Your task to perform on an android device: Search for "logitech g pro" on target.com, select the first entry, add it to the cart, then select checkout. Image 0: 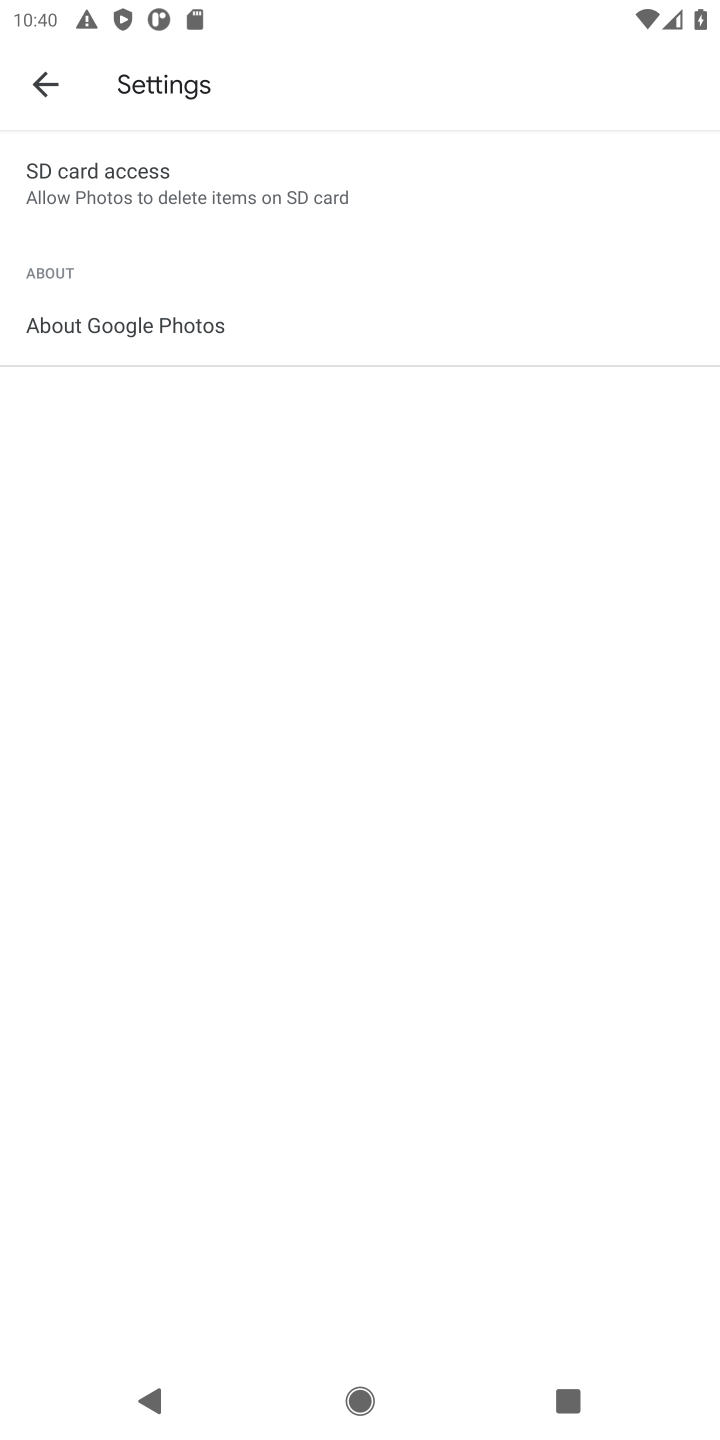
Step 0: press home button
Your task to perform on an android device: Search for "logitech g pro" on target.com, select the first entry, add it to the cart, then select checkout. Image 1: 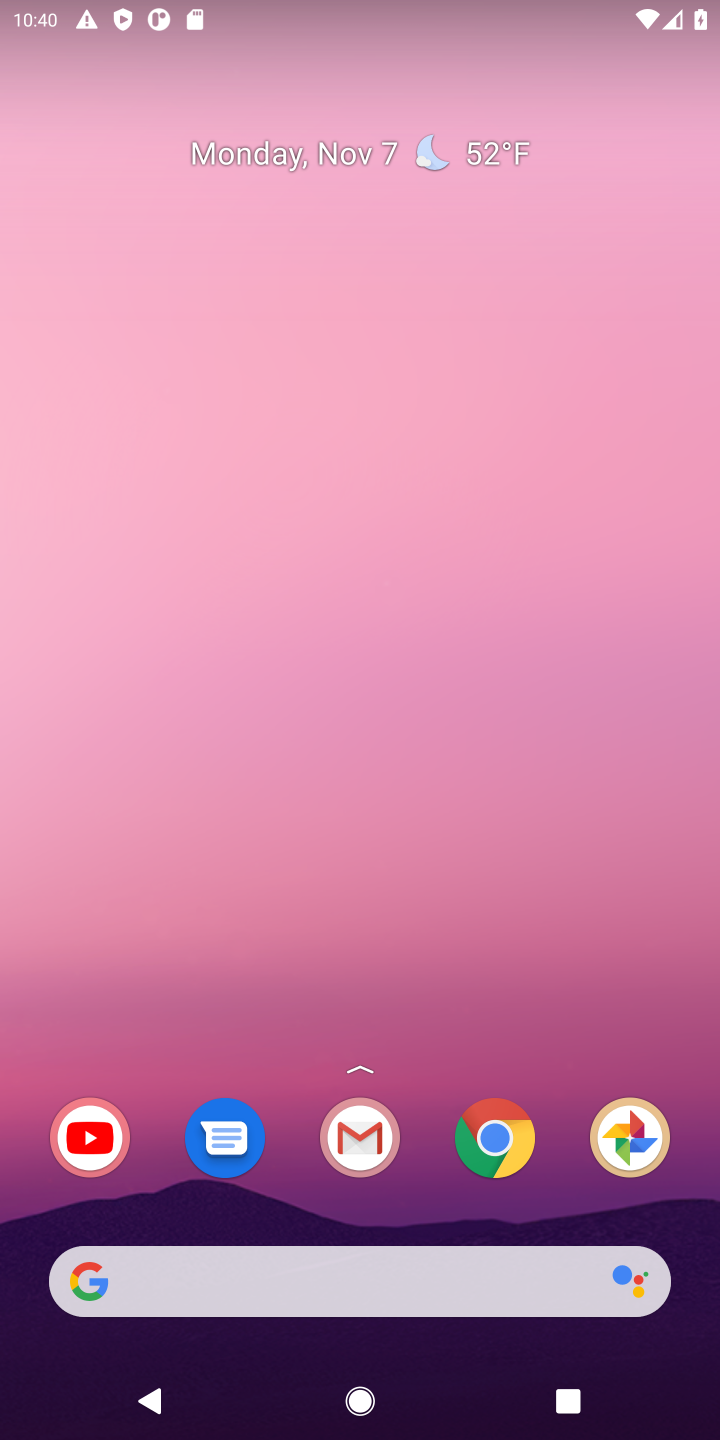
Step 1: click (502, 1147)
Your task to perform on an android device: Search for "logitech g pro" on target.com, select the first entry, add it to the cart, then select checkout. Image 2: 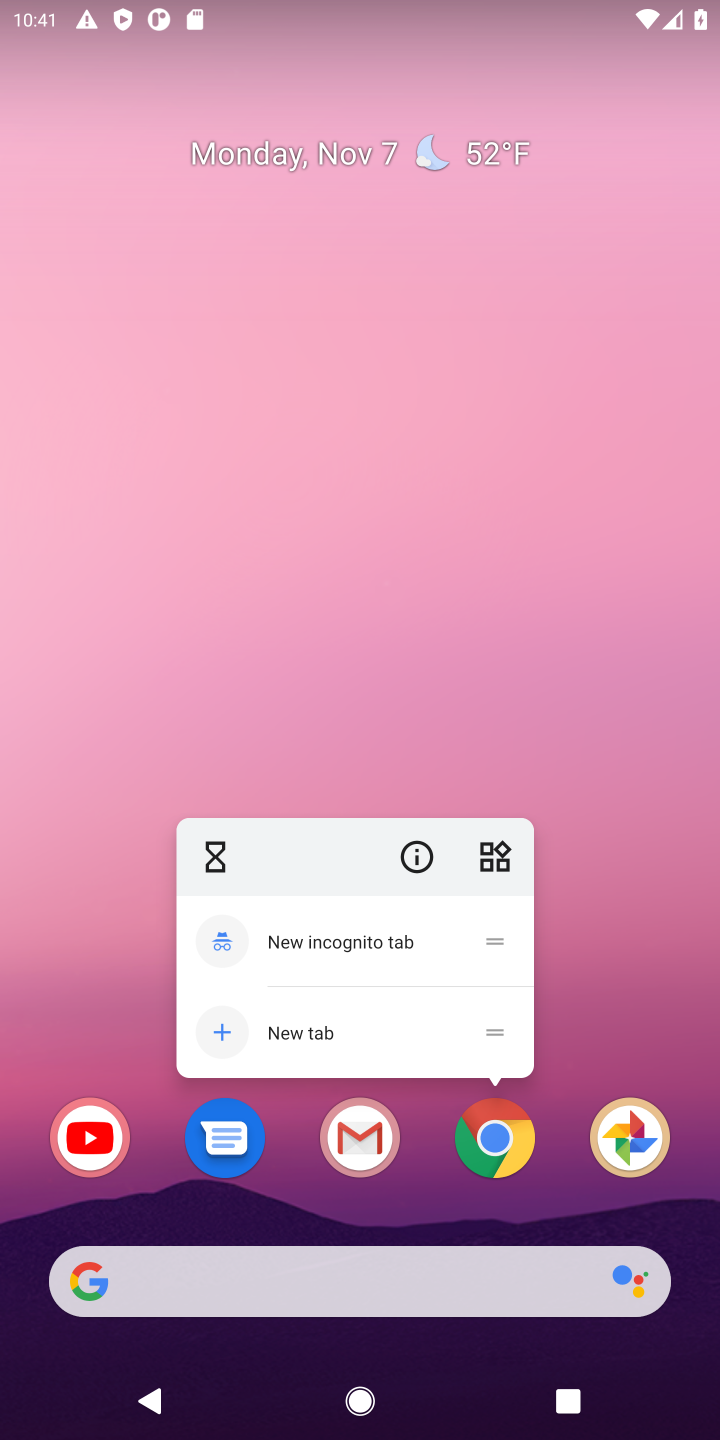
Step 2: click (502, 1147)
Your task to perform on an android device: Search for "logitech g pro" on target.com, select the first entry, add it to the cart, then select checkout. Image 3: 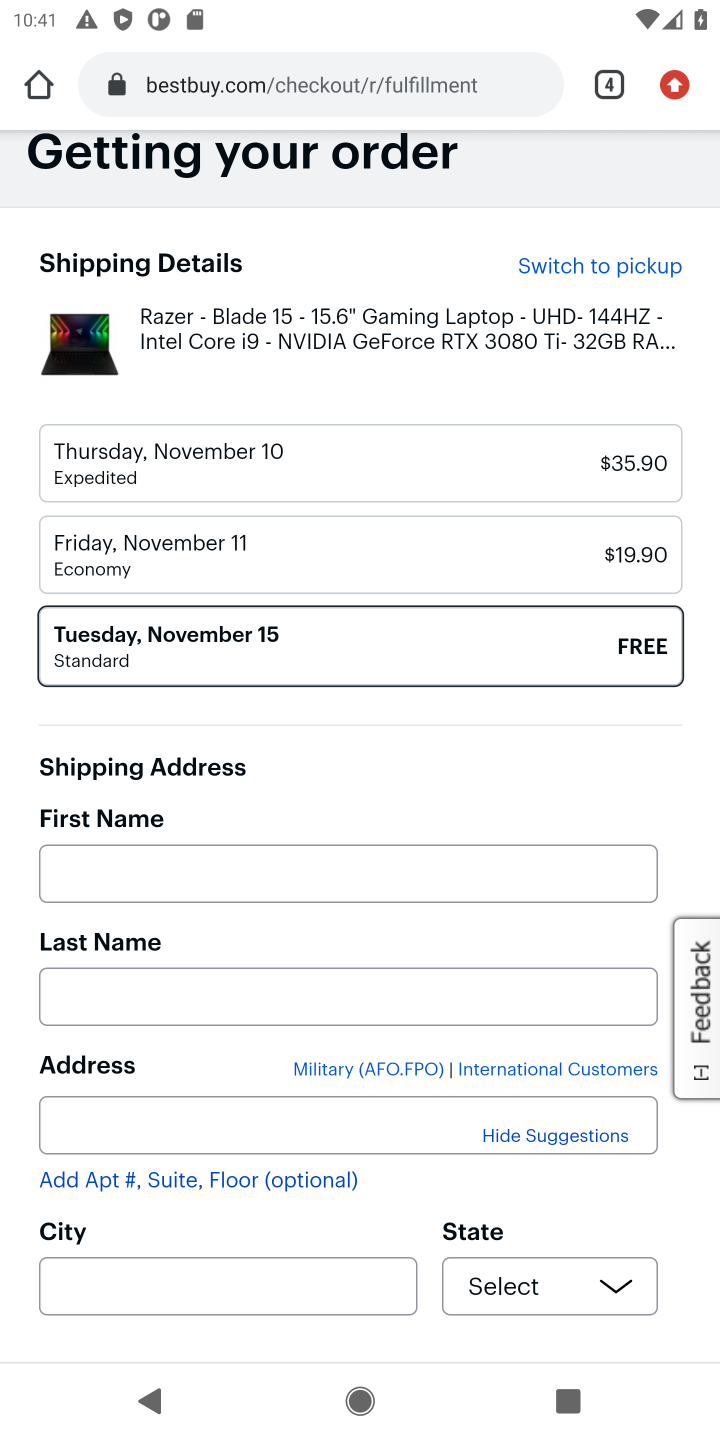
Step 3: click (215, 98)
Your task to perform on an android device: Search for "logitech g pro" on target.com, select the first entry, add it to the cart, then select checkout. Image 4: 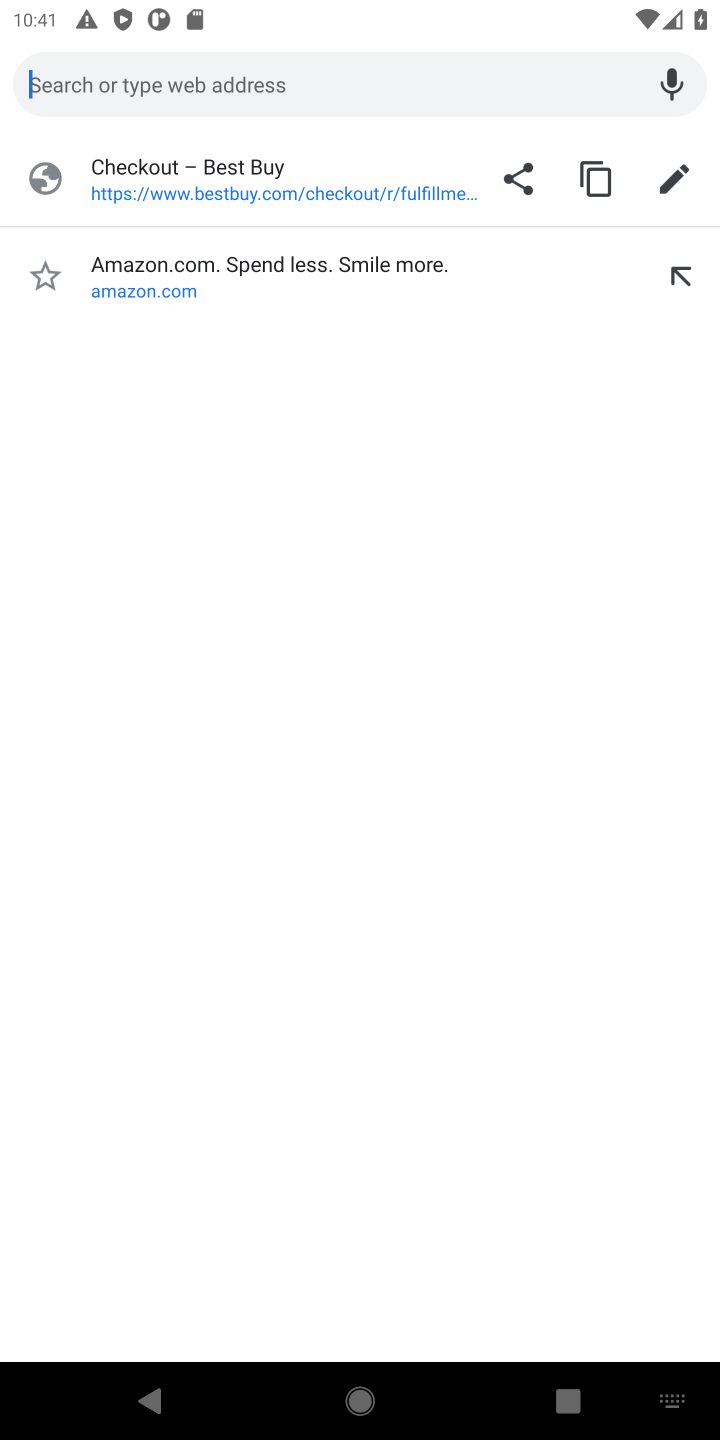
Step 4: type "target "
Your task to perform on an android device: Search for "logitech g pro" on target.com, select the first entry, add it to the cart, then select checkout. Image 5: 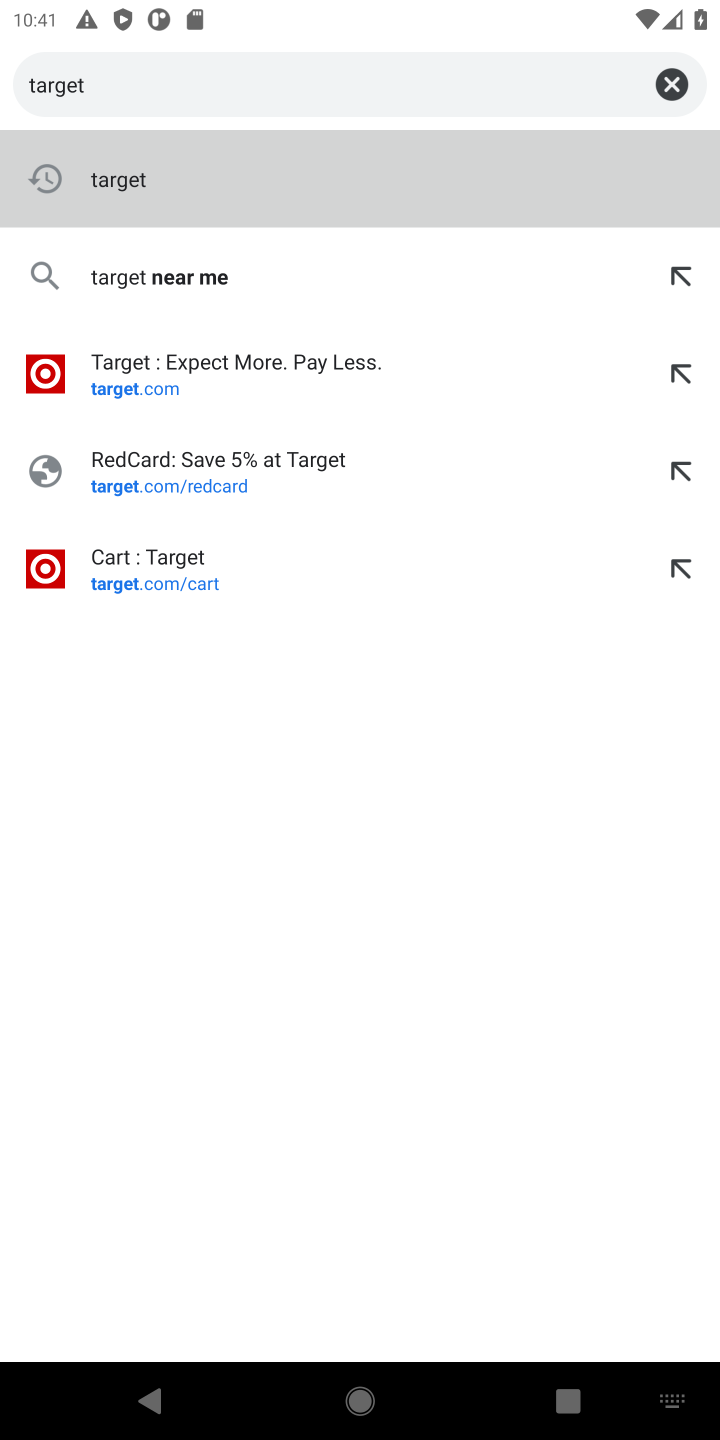
Step 5: click (124, 553)
Your task to perform on an android device: Search for "logitech g pro" on target.com, select the first entry, add it to the cart, then select checkout. Image 6: 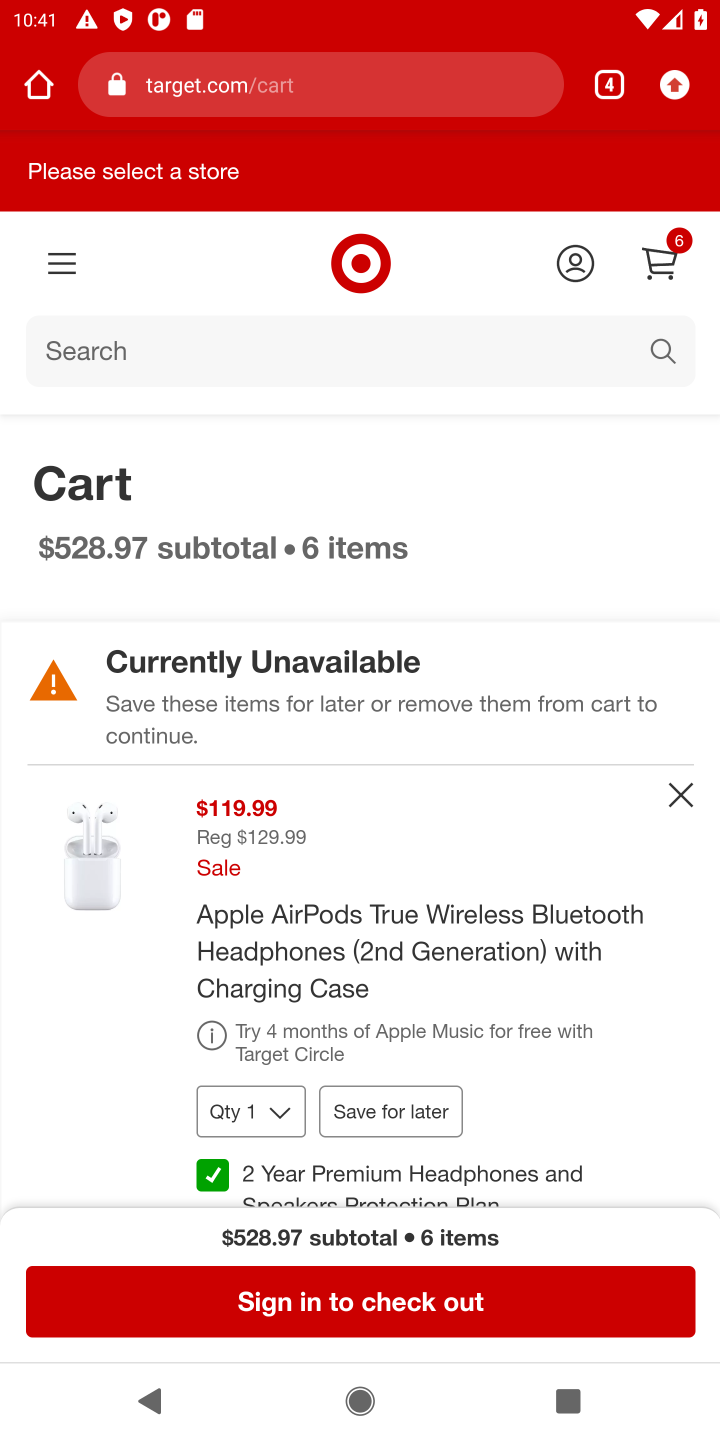
Step 6: click (664, 330)
Your task to perform on an android device: Search for "logitech g pro" on target.com, select the first entry, add it to the cart, then select checkout. Image 7: 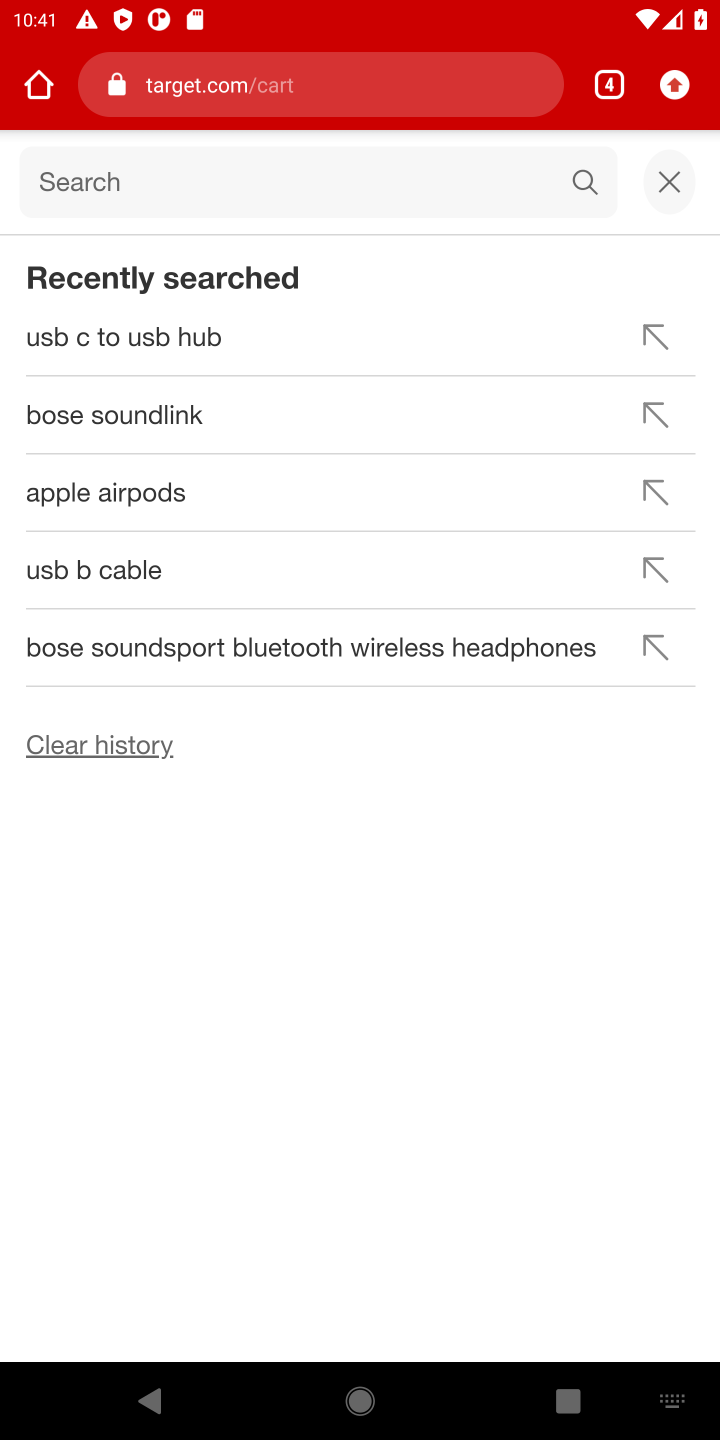
Step 7: type "logitech g pro"
Your task to perform on an android device: Search for "logitech g pro" on target.com, select the first entry, add it to the cart, then select checkout. Image 8: 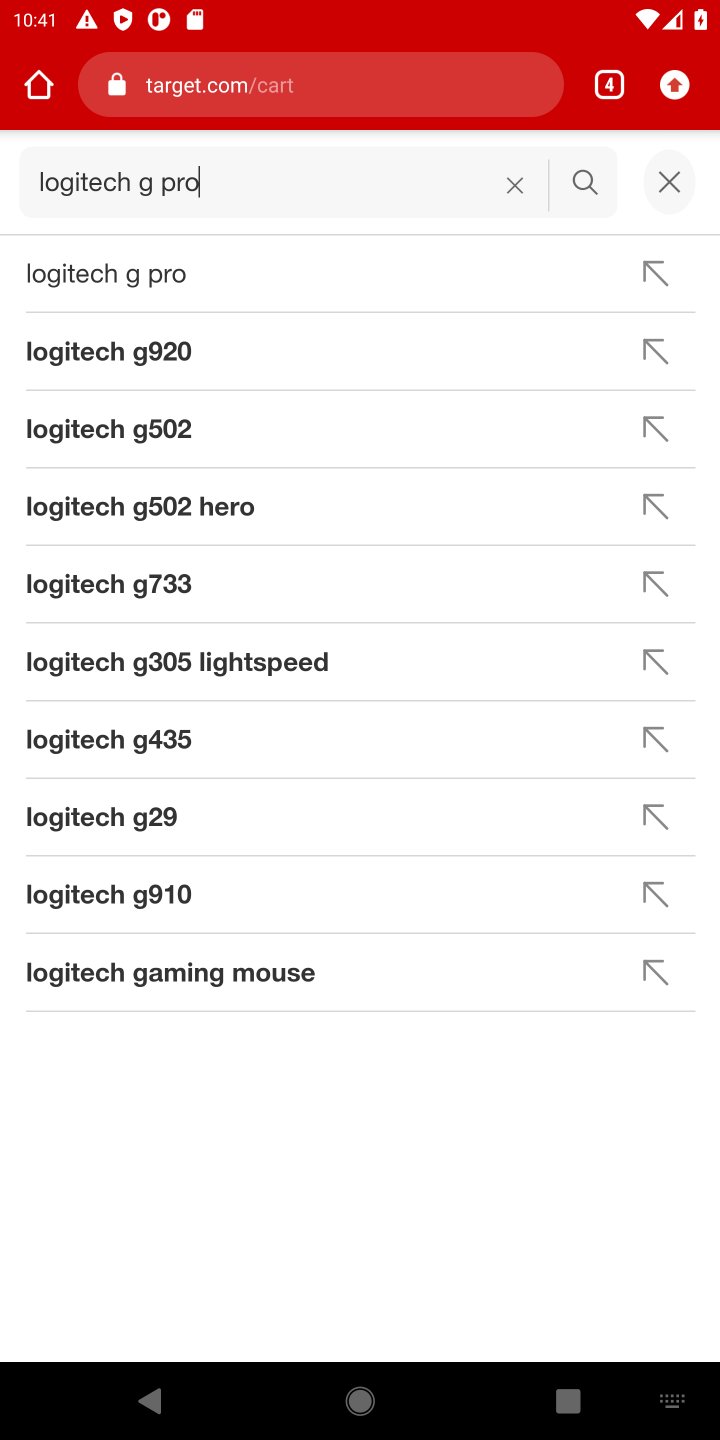
Step 8: click (106, 267)
Your task to perform on an android device: Search for "logitech g pro" on target.com, select the first entry, add it to the cart, then select checkout. Image 9: 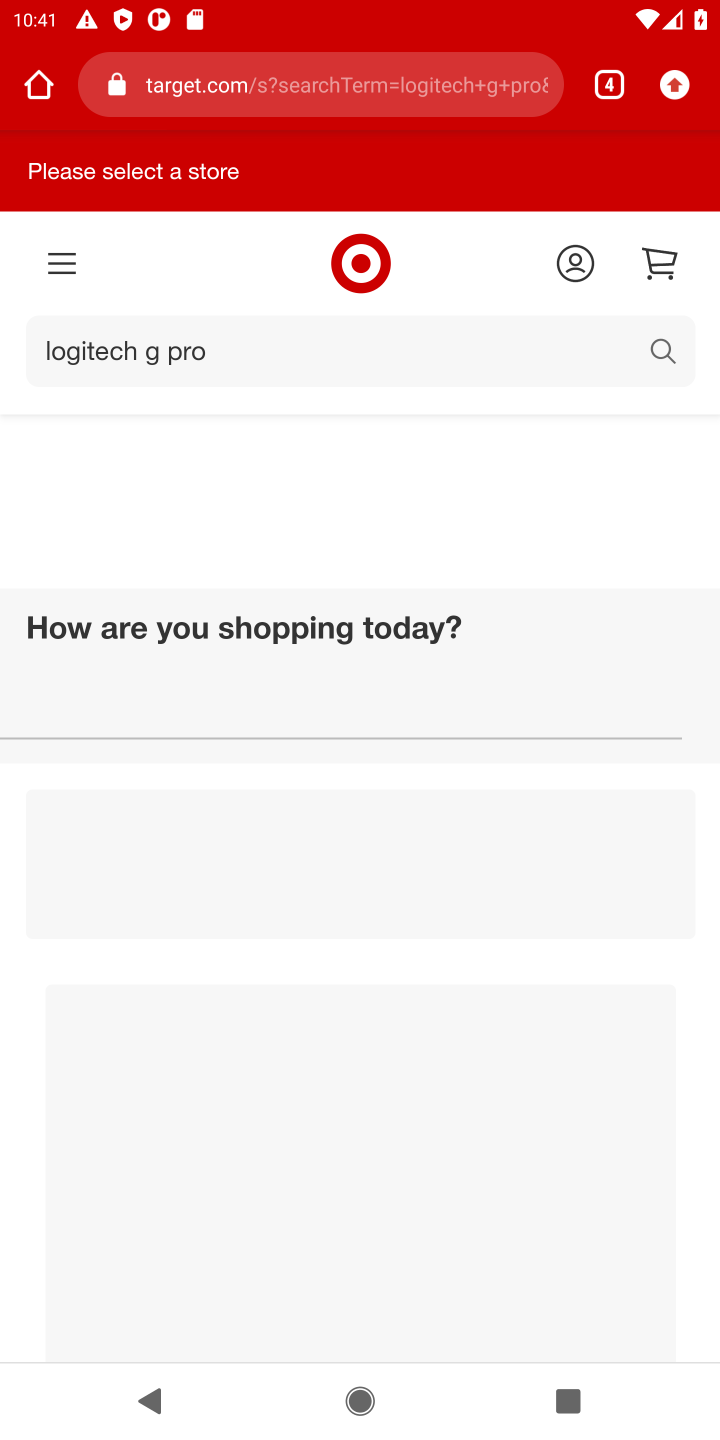
Step 9: drag from (321, 1116) to (250, 372)
Your task to perform on an android device: Search for "logitech g pro" on target.com, select the first entry, add it to the cart, then select checkout. Image 10: 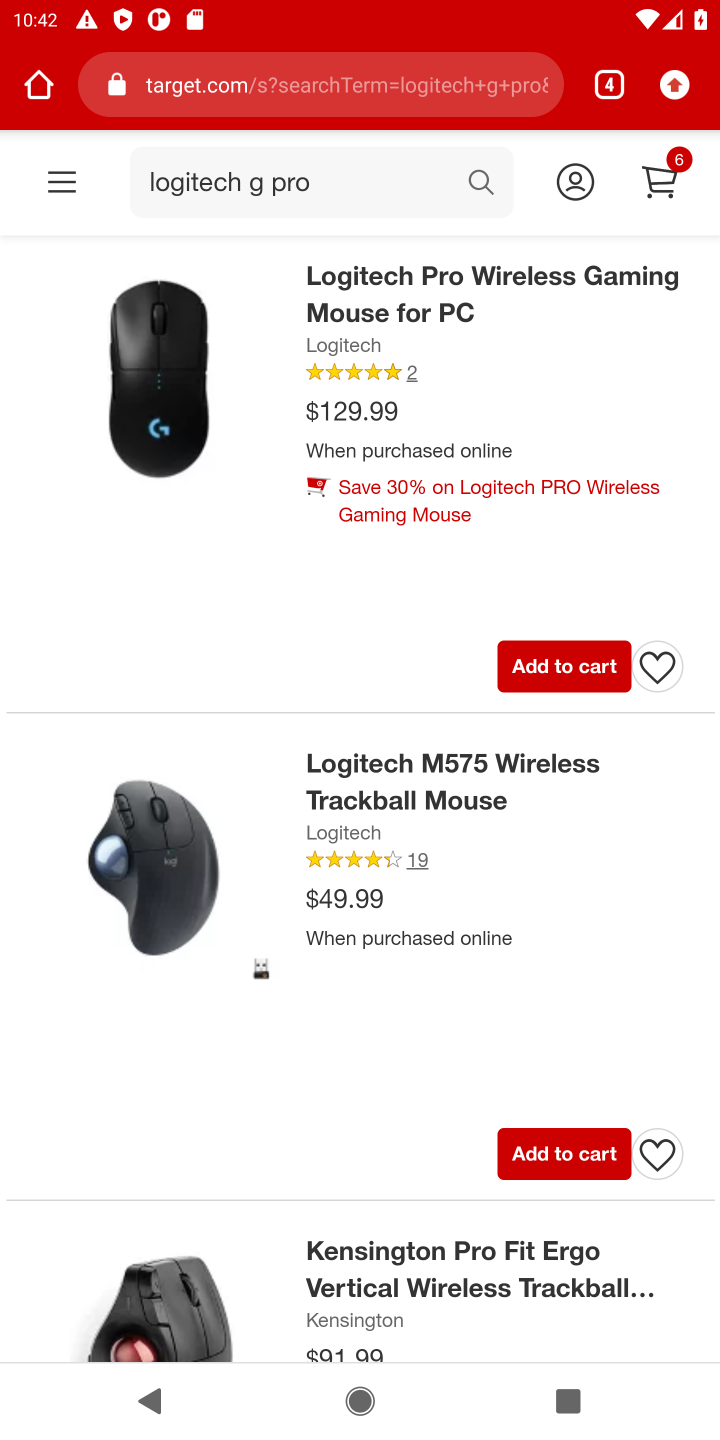
Step 10: click (339, 275)
Your task to perform on an android device: Search for "logitech g pro" on target.com, select the first entry, add it to the cart, then select checkout. Image 11: 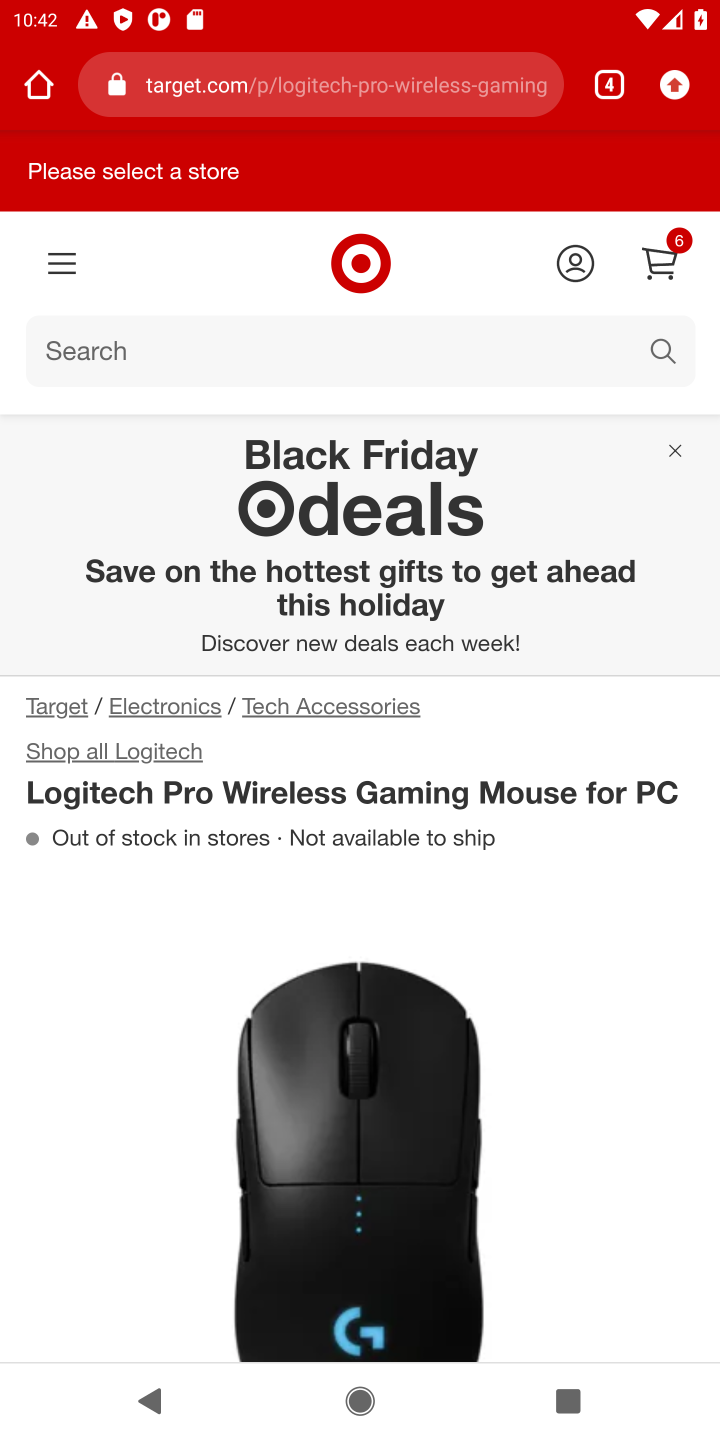
Step 11: drag from (329, 1003) to (323, 475)
Your task to perform on an android device: Search for "logitech g pro" on target.com, select the first entry, add it to the cart, then select checkout. Image 12: 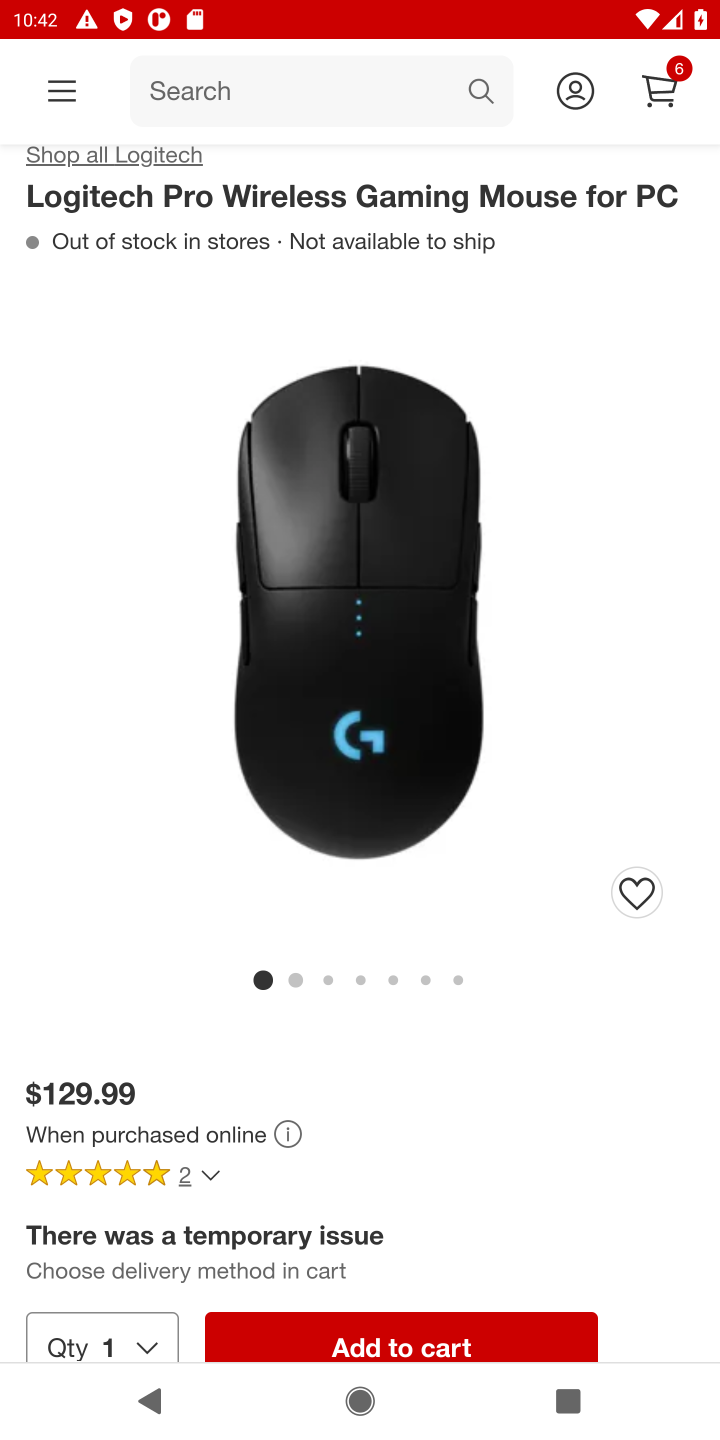
Step 12: drag from (275, 1068) to (346, 629)
Your task to perform on an android device: Search for "logitech g pro" on target.com, select the first entry, add it to the cart, then select checkout. Image 13: 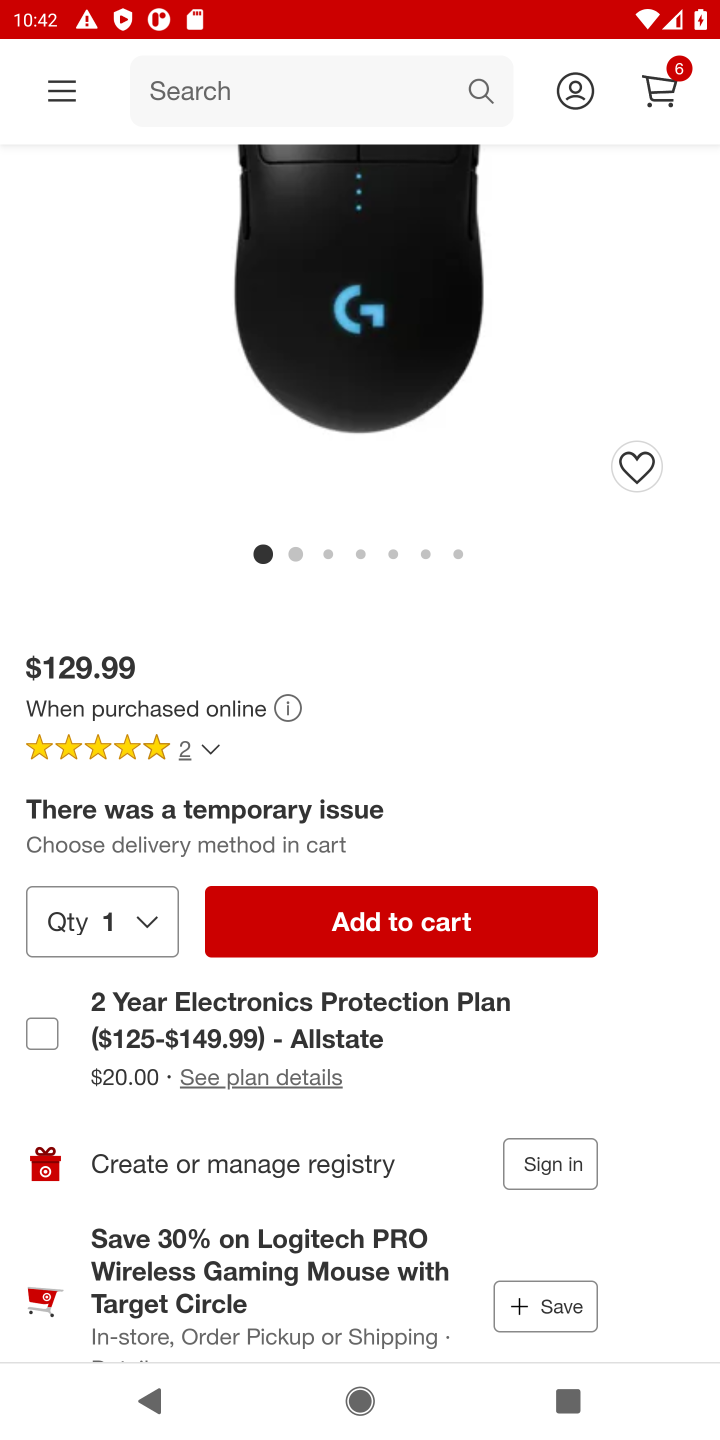
Step 13: click (409, 925)
Your task to perform on an android device: Search for "logitech g pro" on target.com, select the first entry, add it to the cart, then select checkout. Image 14: 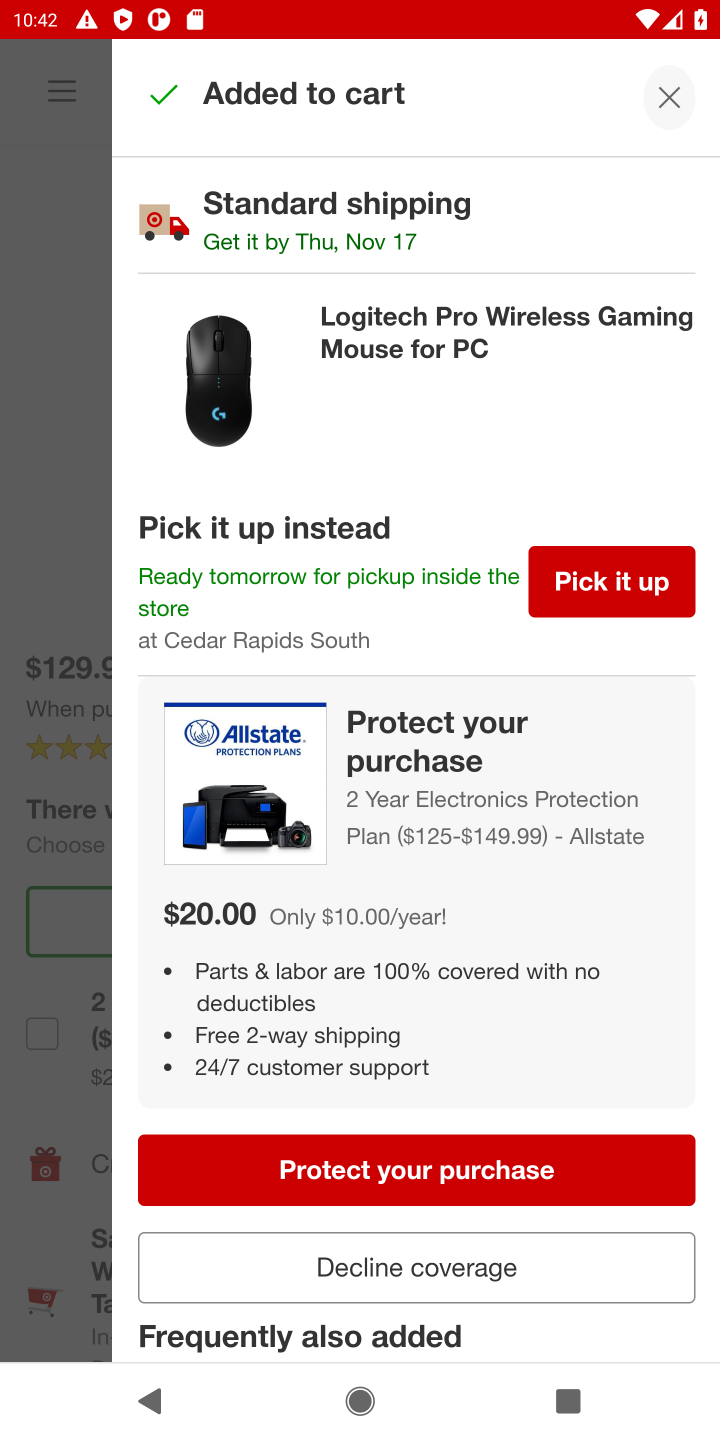
Step 14: click (375, 1174)
Your task to perform on an android device: Search for "logitech g pro" on target.com, select the first entry, add it to the cart, then select checkout. Image 15: 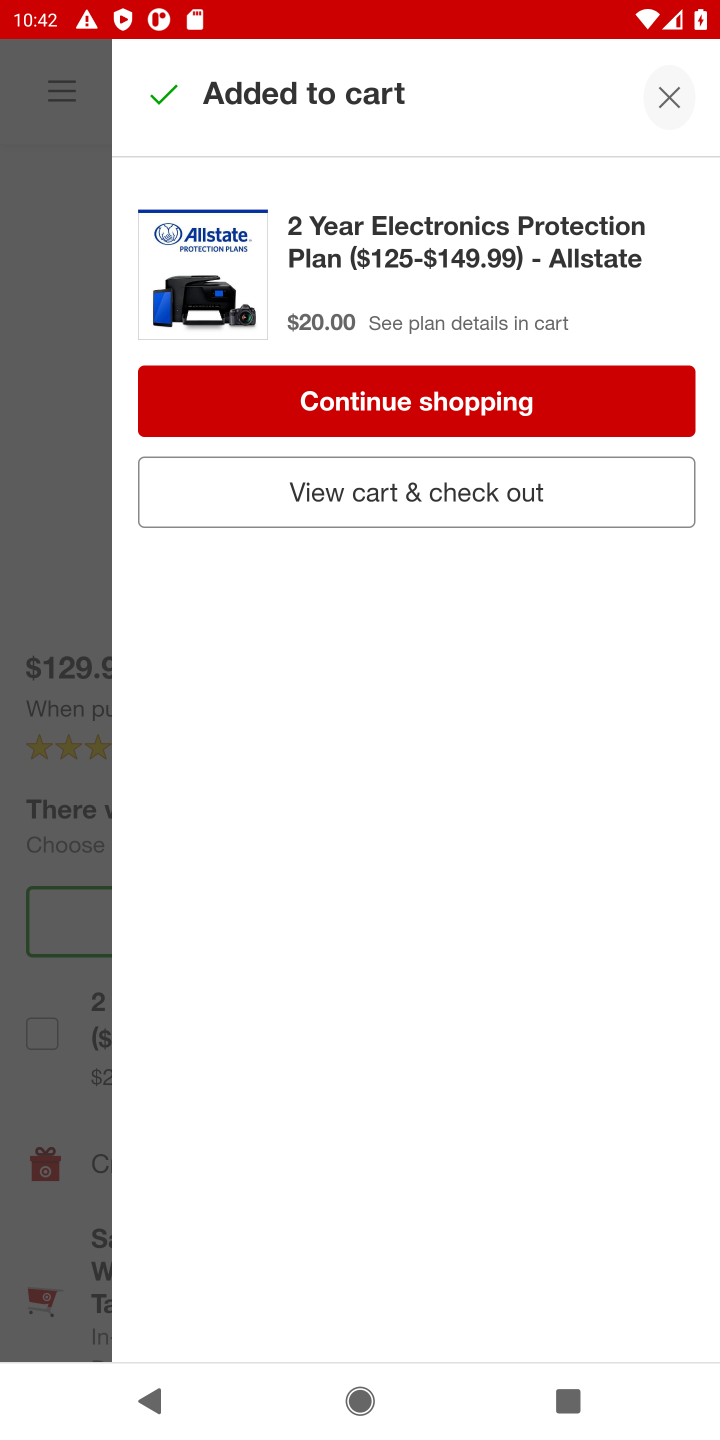
Step 15: click (334, 495)
Your task to perform on an android device: Search for "logitech g pro" on target.com, select the first entry, add it to the cart, then select checkout. Image 16: 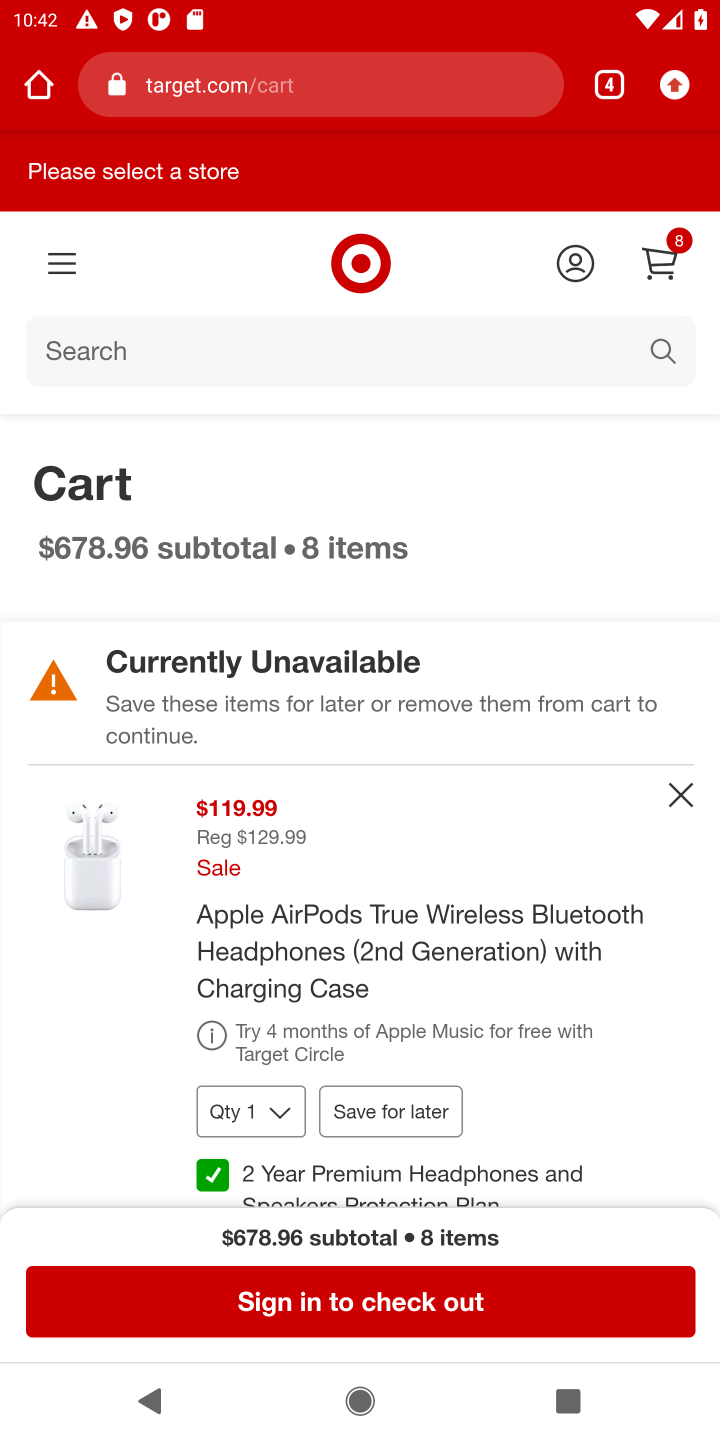
Step 16: click (268, 1319)
Your task to perform on an android device: Search for "logitech g pro" on target.com, select the first entry, add it to the cart, then select checkout. Image 17: 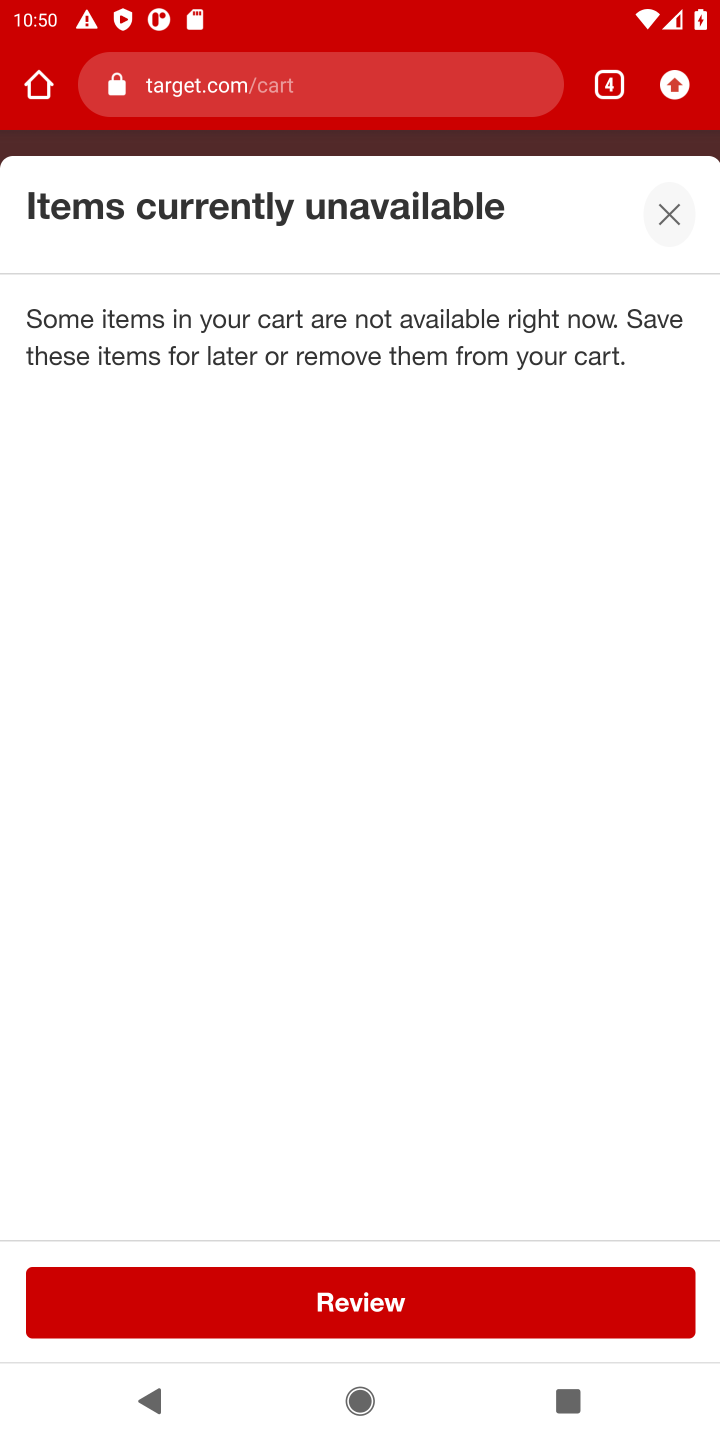
Step 17: task complete